Your task to perform on an android device: Go to display settings Image 0: 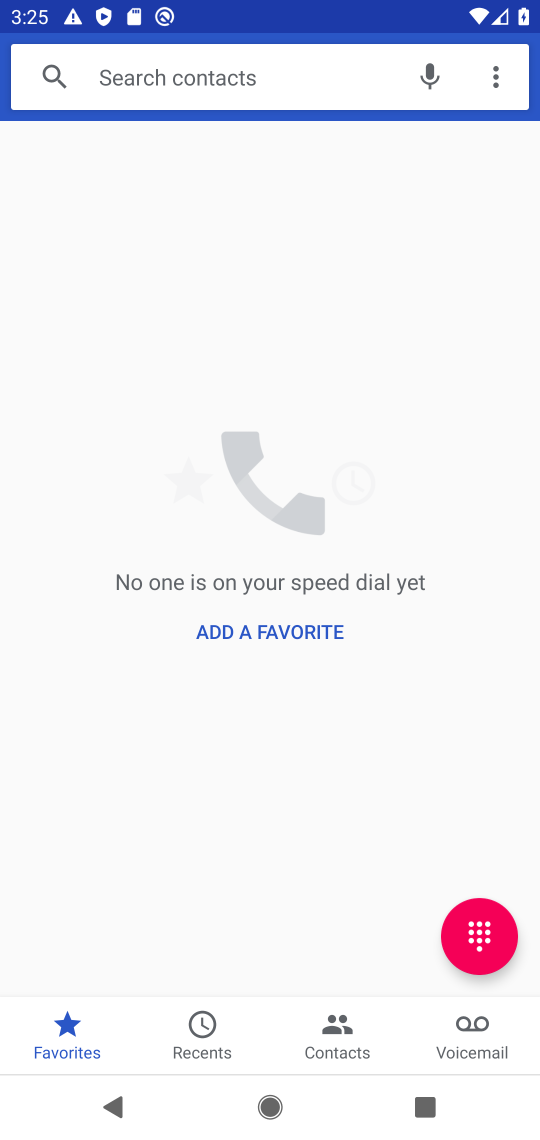
Step 0: click (275, 1118)
Your task to perform on an android device: Go to display settings Image 1: 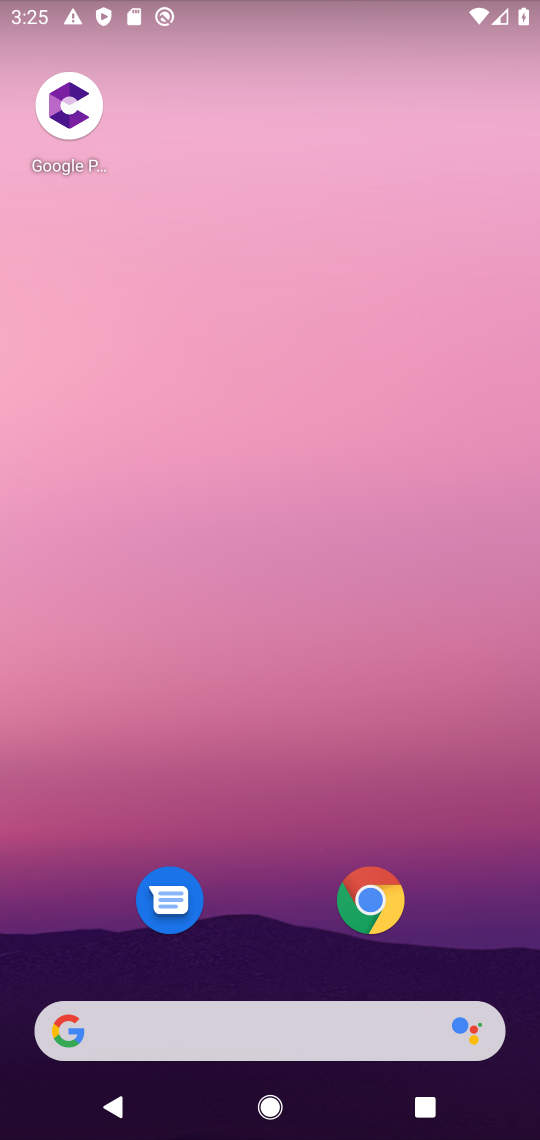
Step 1: drag from (229, 684) to (210, 284)
Your task to perform on an android device: Go to display settings Image 2: 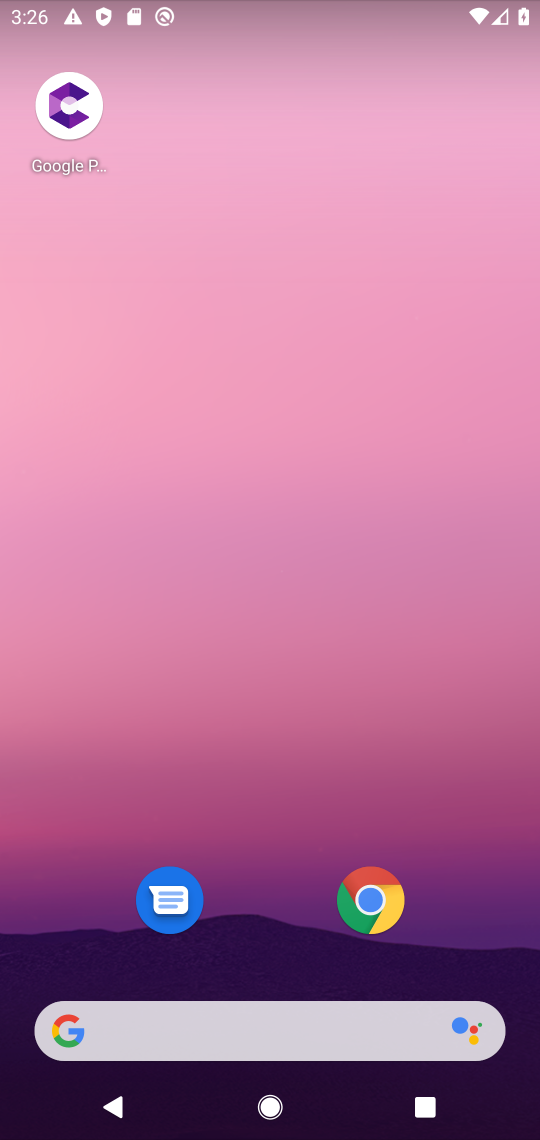
Step 2: drag from (243, 960) to (128, 139)
Your task to perform on an android device: Go to display settings Image 3: 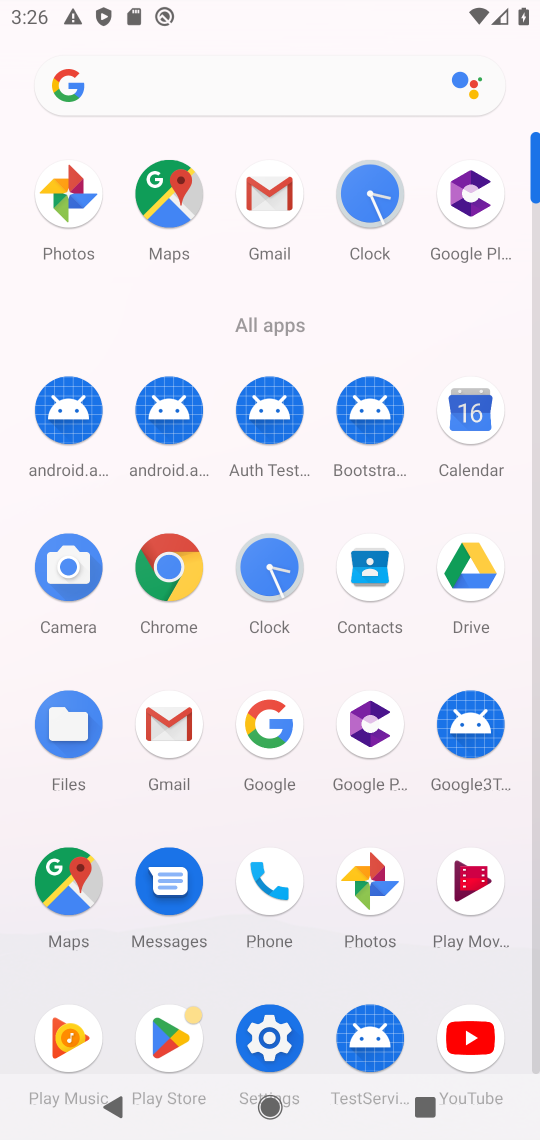
Step 3: click (259, 1045)
Your task to perform on an android device: Go to display settings Image 4: 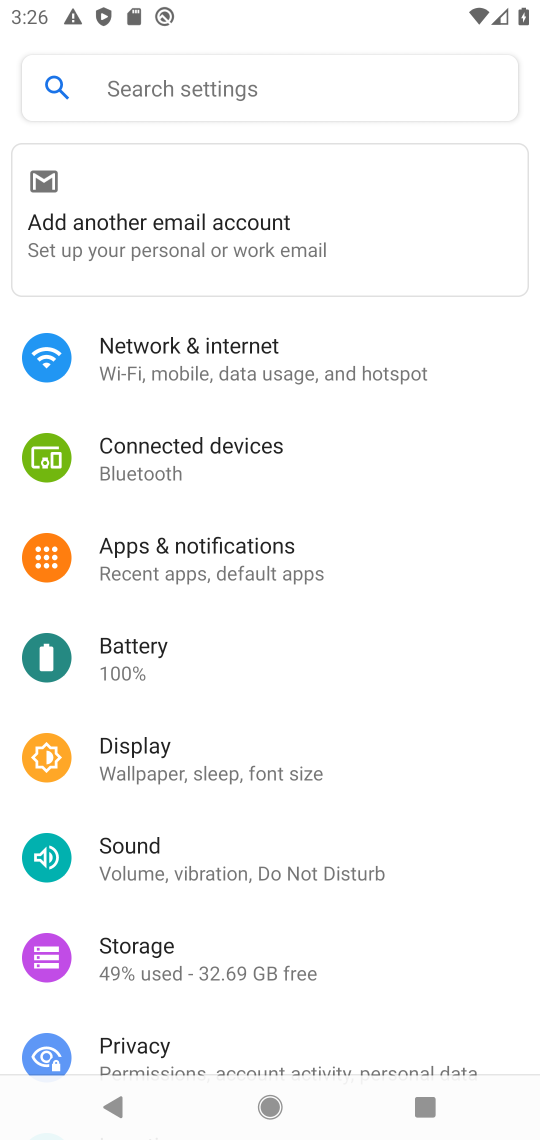
Step 4: drag from (392, 924) to (343, 483)
Your task to perform on an android device: Go to display settings Image 5: 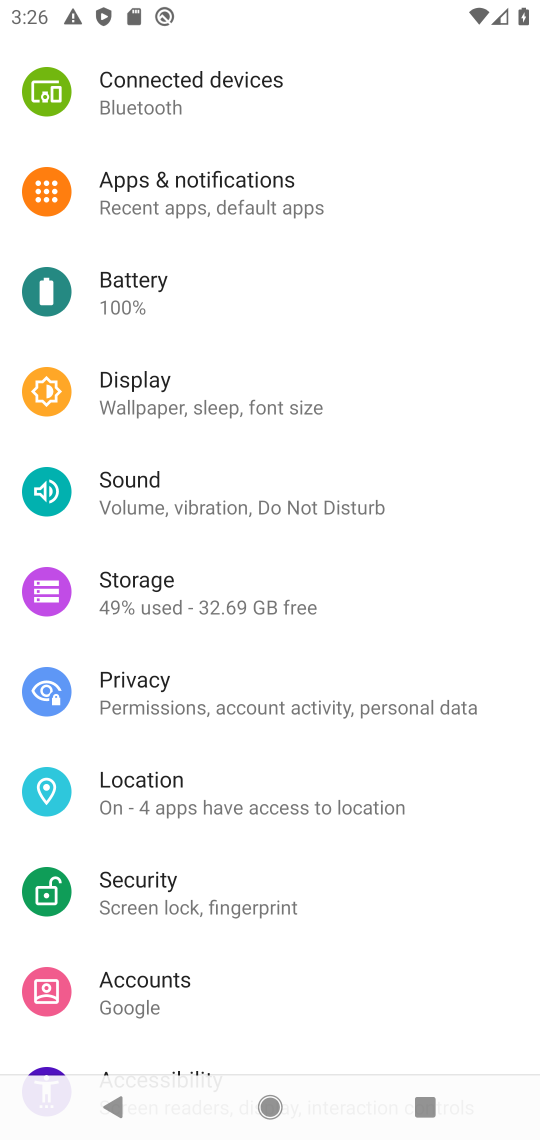
Step 5: drag from (341, 932) to (325, 426)
Your task to perform on an android device: Go to display settings Image 6: 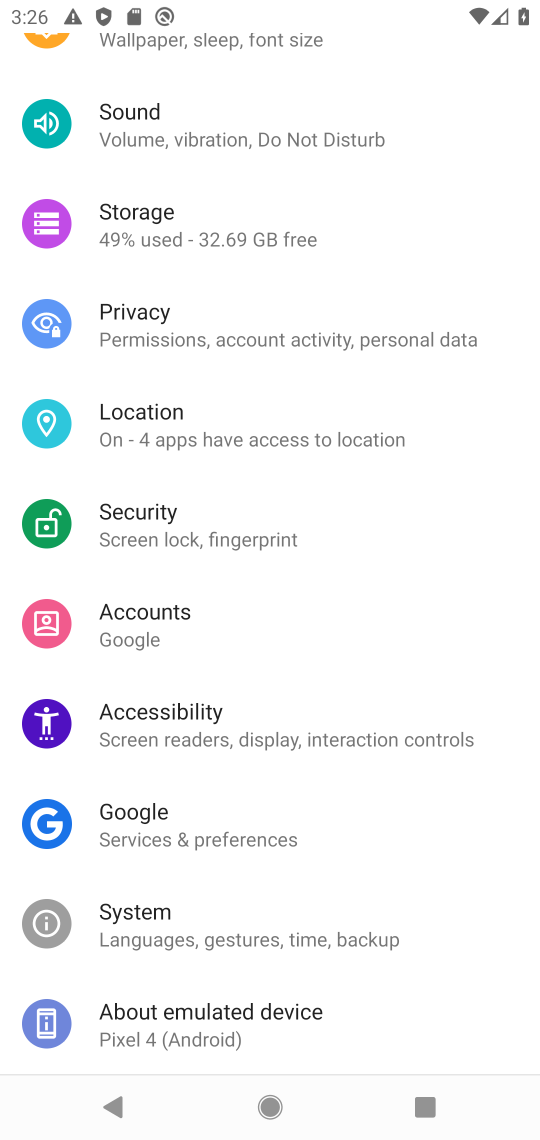
Step 6: drag from (399, 163) to (371, 993)
Your task to perform on an android device: Go to display settings Image 7: 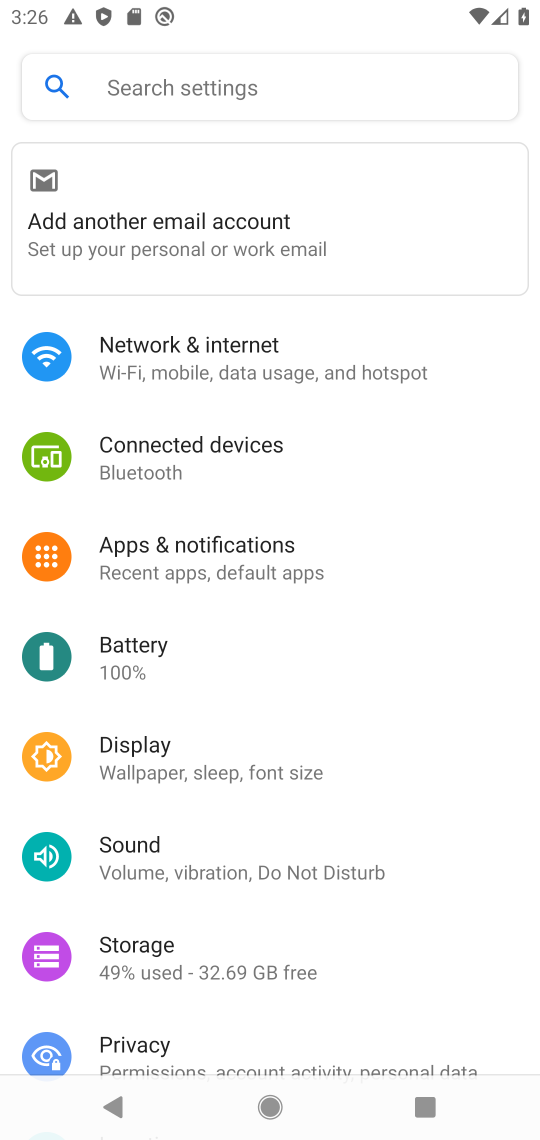
Step 7: click (145, 769)
Your task to perform on an android device: Go to display settings Image 8: 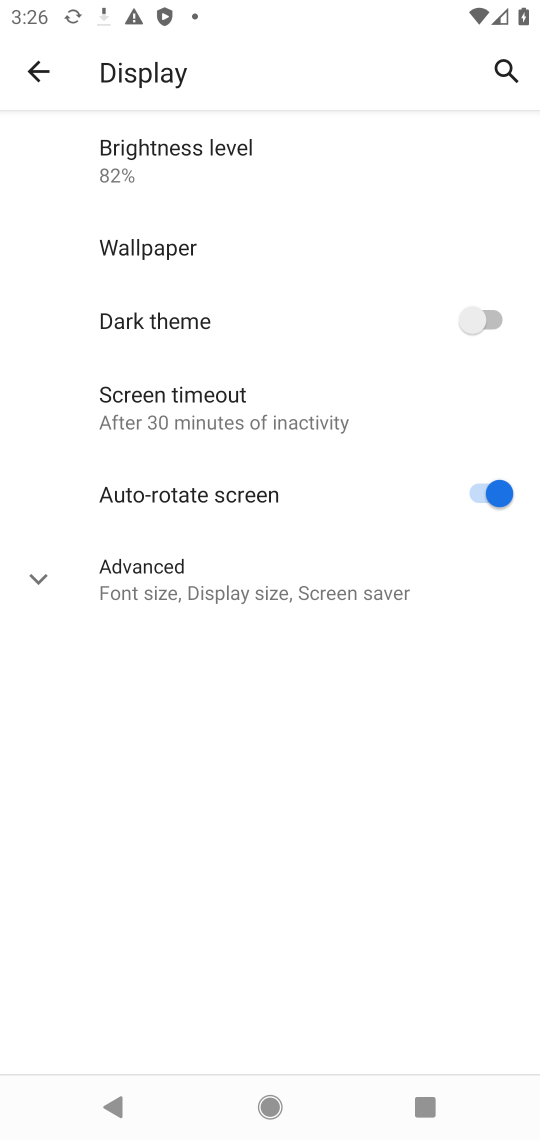
Step 8: task complete